Your task to perform on an android device: Clear the cart on target.com. Image 0: 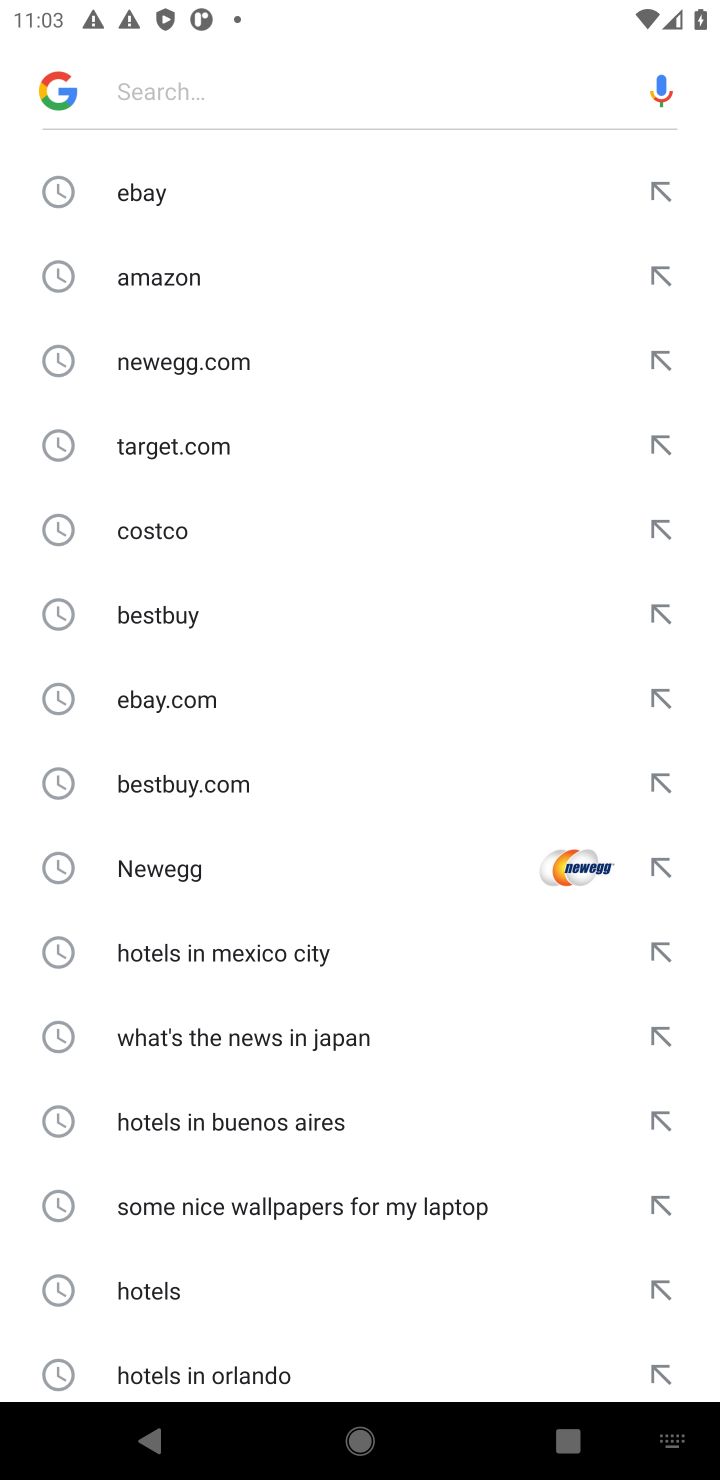
Step 0: click (132, 93)
Your task to perform on an android device: Clear the cart on target.com. Image 1: 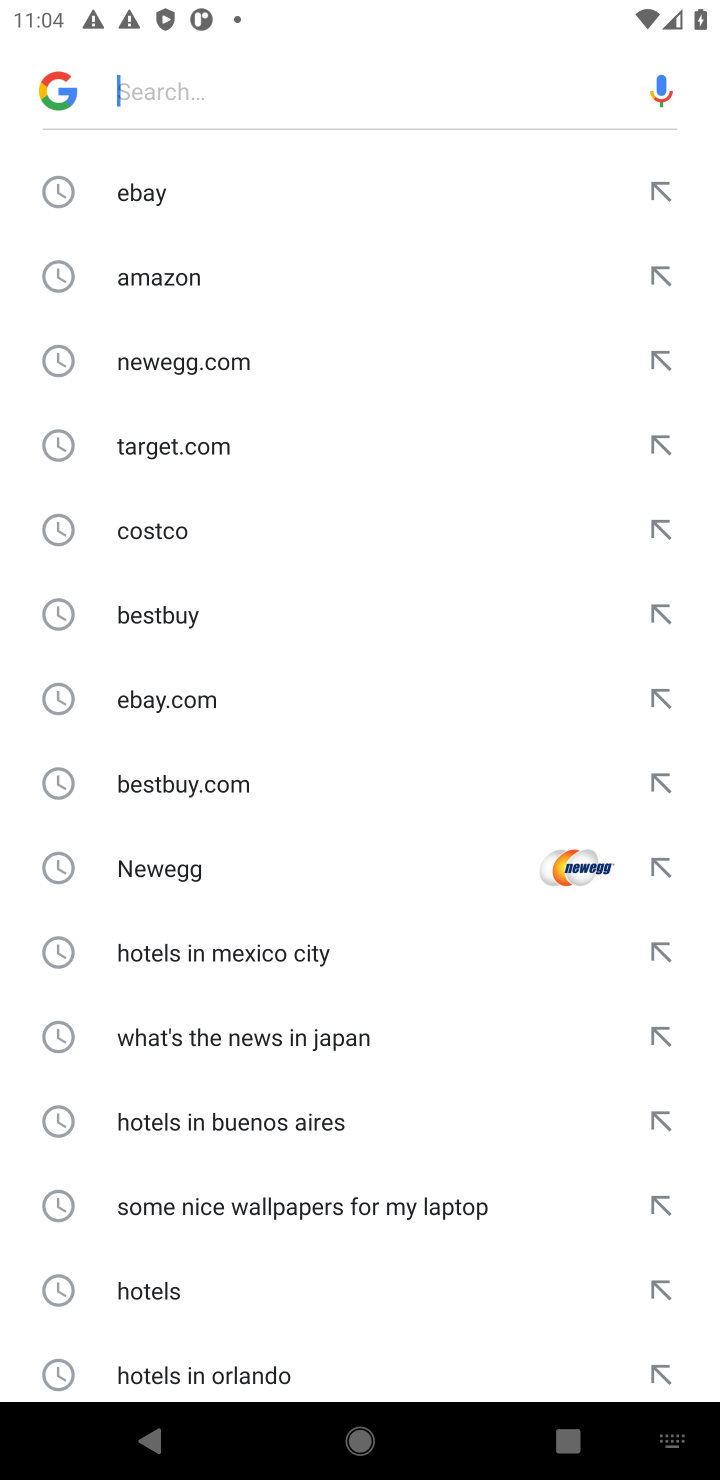
Step 1: type "target.com"
Your task to perform on an android device: Clear the cart on target.com. Image 2: 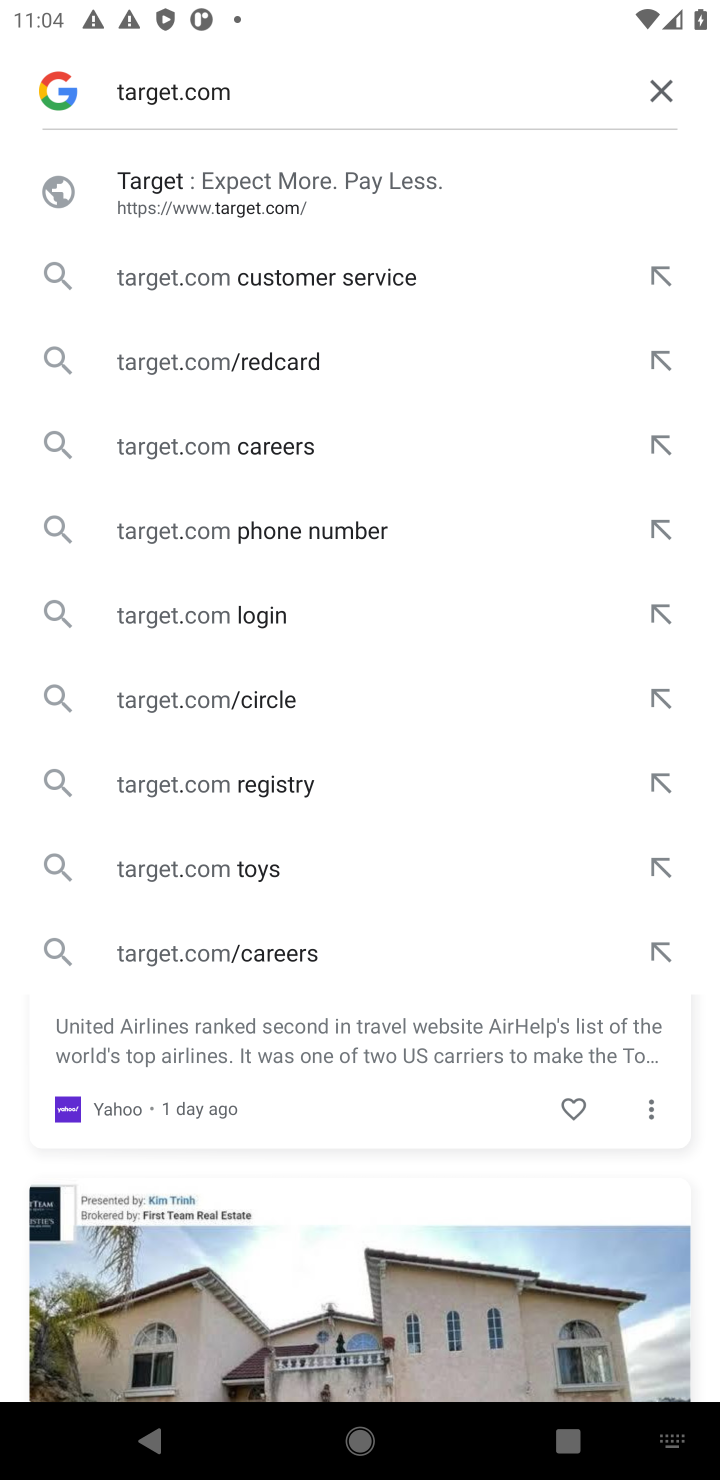
Step 2: click (202, 195)
Your task to perform on an android device: Clear the cart on target.com. Image 3: 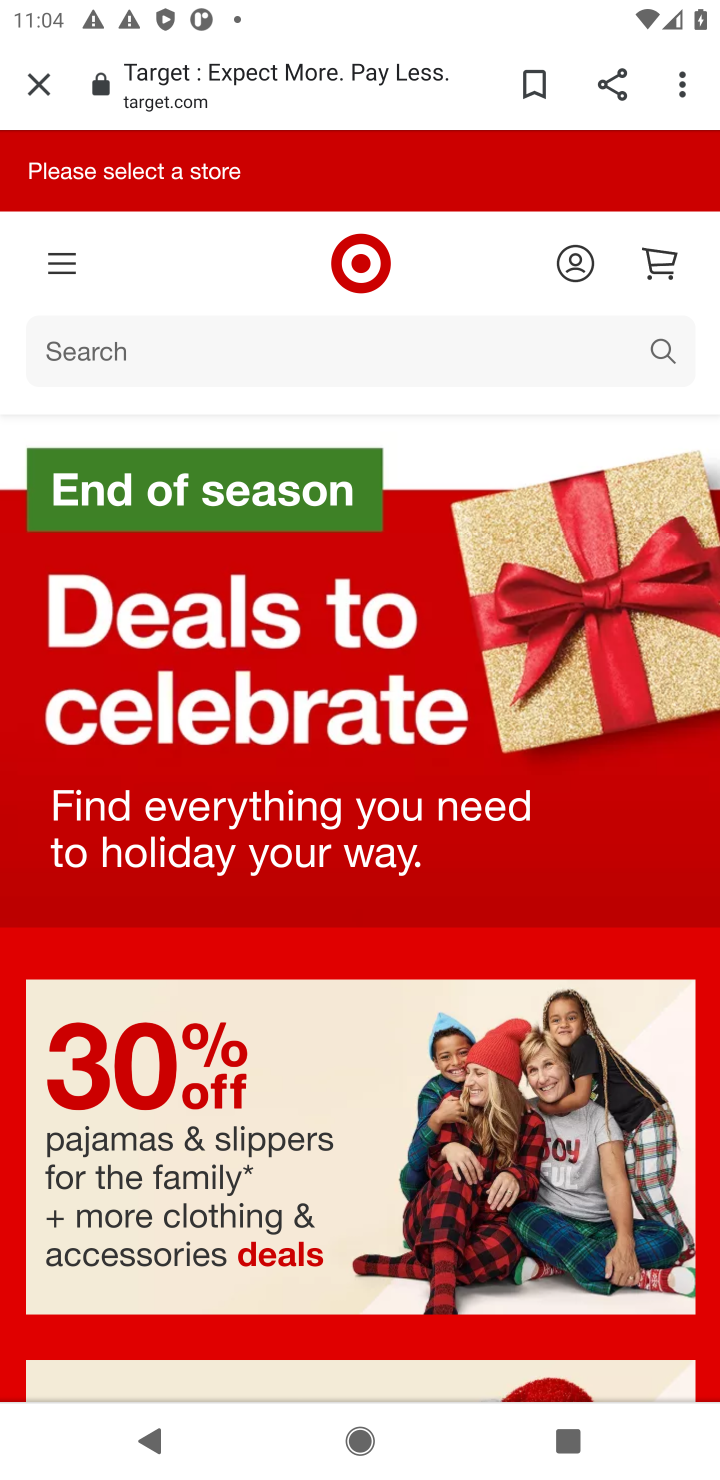
Step 3: click (660, 263)
Your task to perform on an android device: Clear the cart on target.com. Image 4: 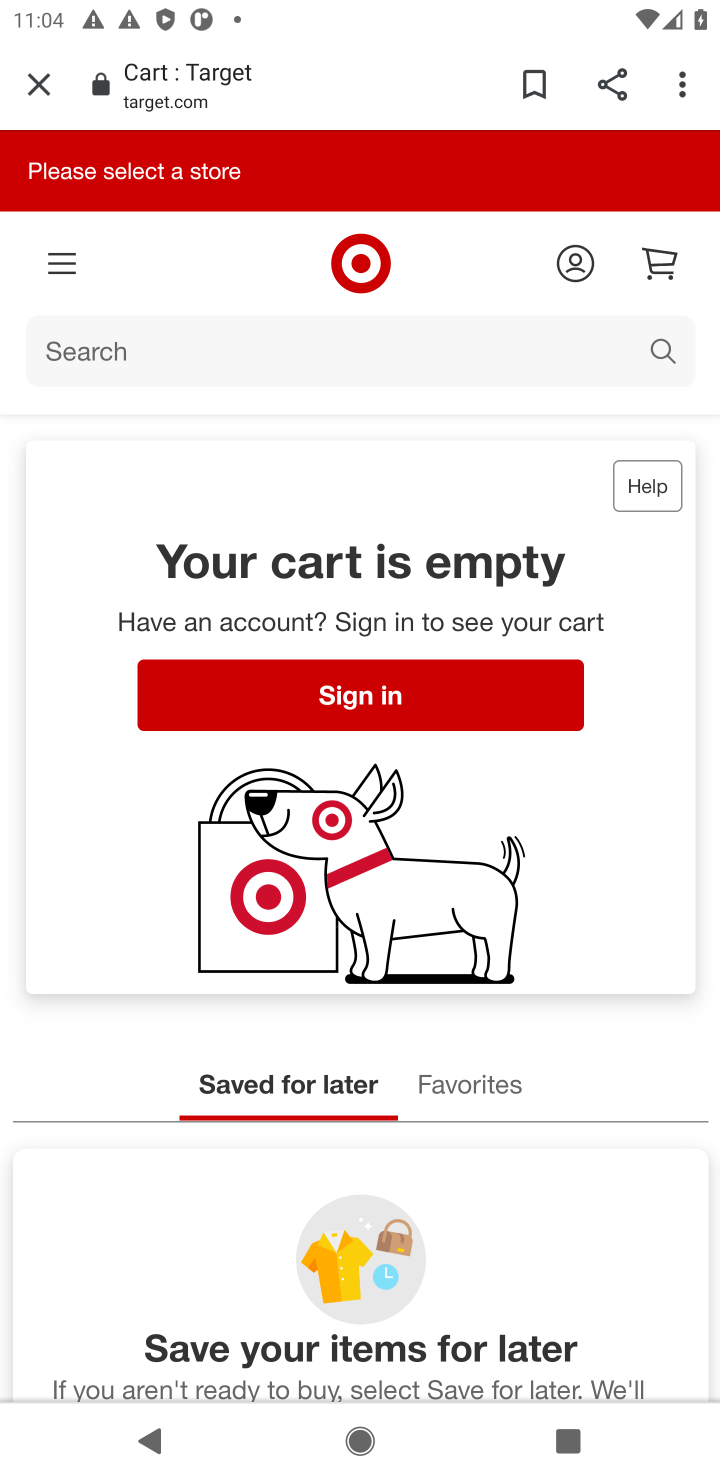
Step 4: task complete